Your task to perform on an android device: open app "Reddit" (install if not already installed) and go to login screen Image 0: 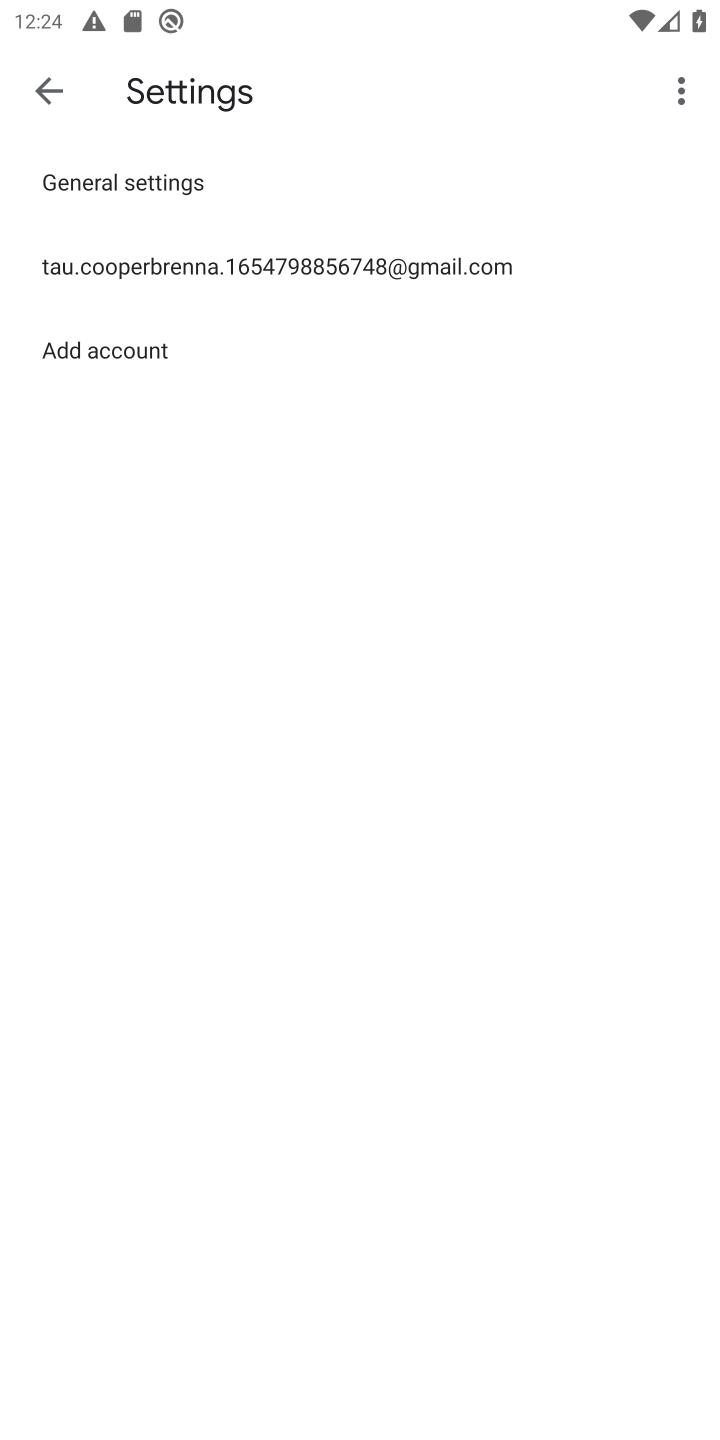
Step 0: press back button
Your task to perform on an android device: open app "Reddit" (install if not already installed) and go to login screen Image 1: 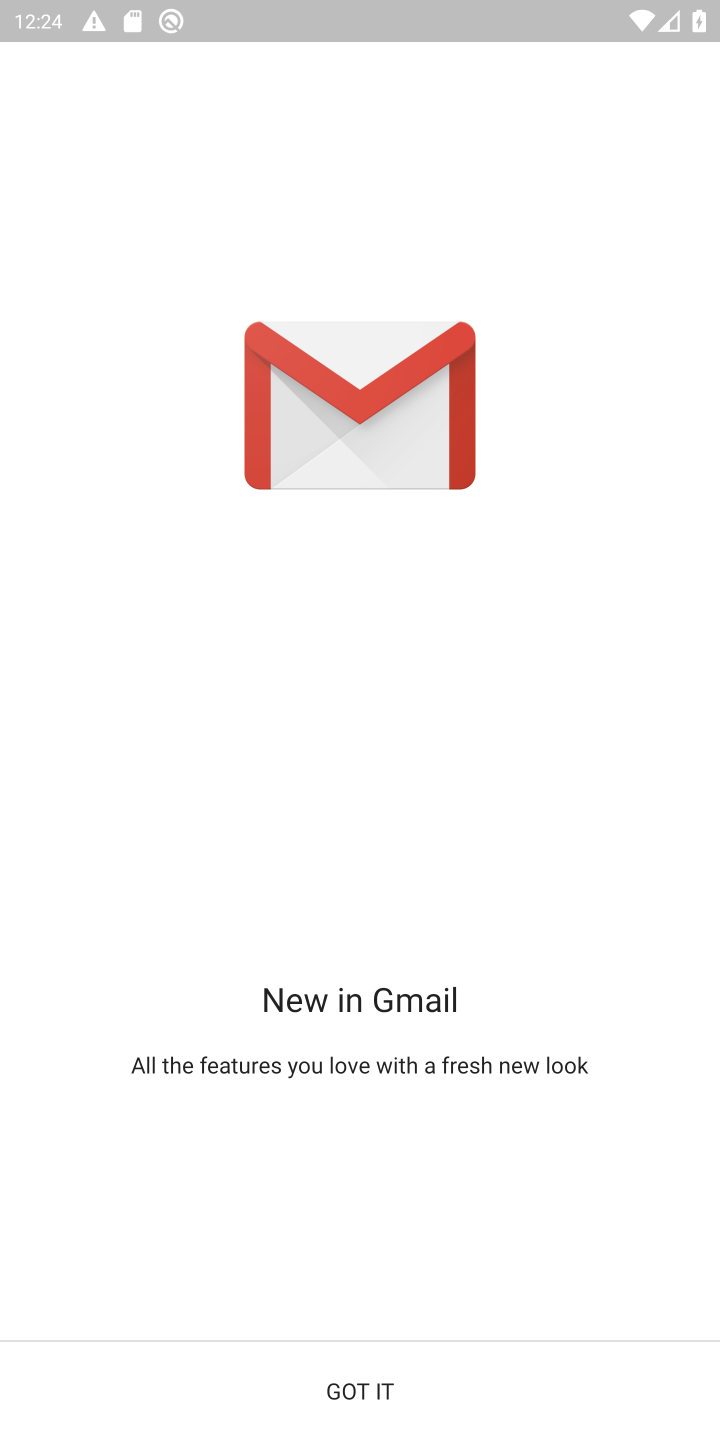
Step 1: press back button
Your task to perform on an android device: open app "Reddit" (install if not already installed) and go to login screen Image 2: 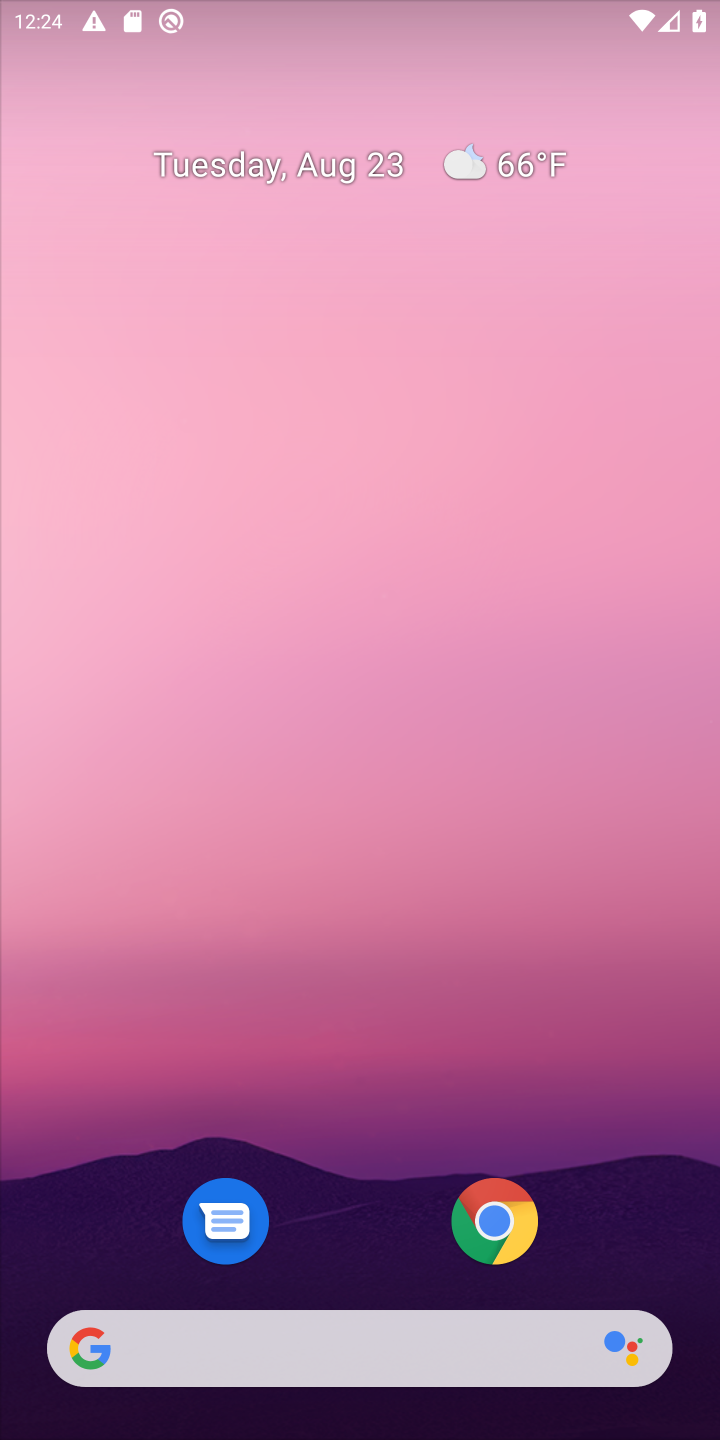
Step 2: drag from (378, 1146) to (479, 106)
Your task to perform on an android device: open app "Reddit" (install if not already installed) and go to login screen Image 3: 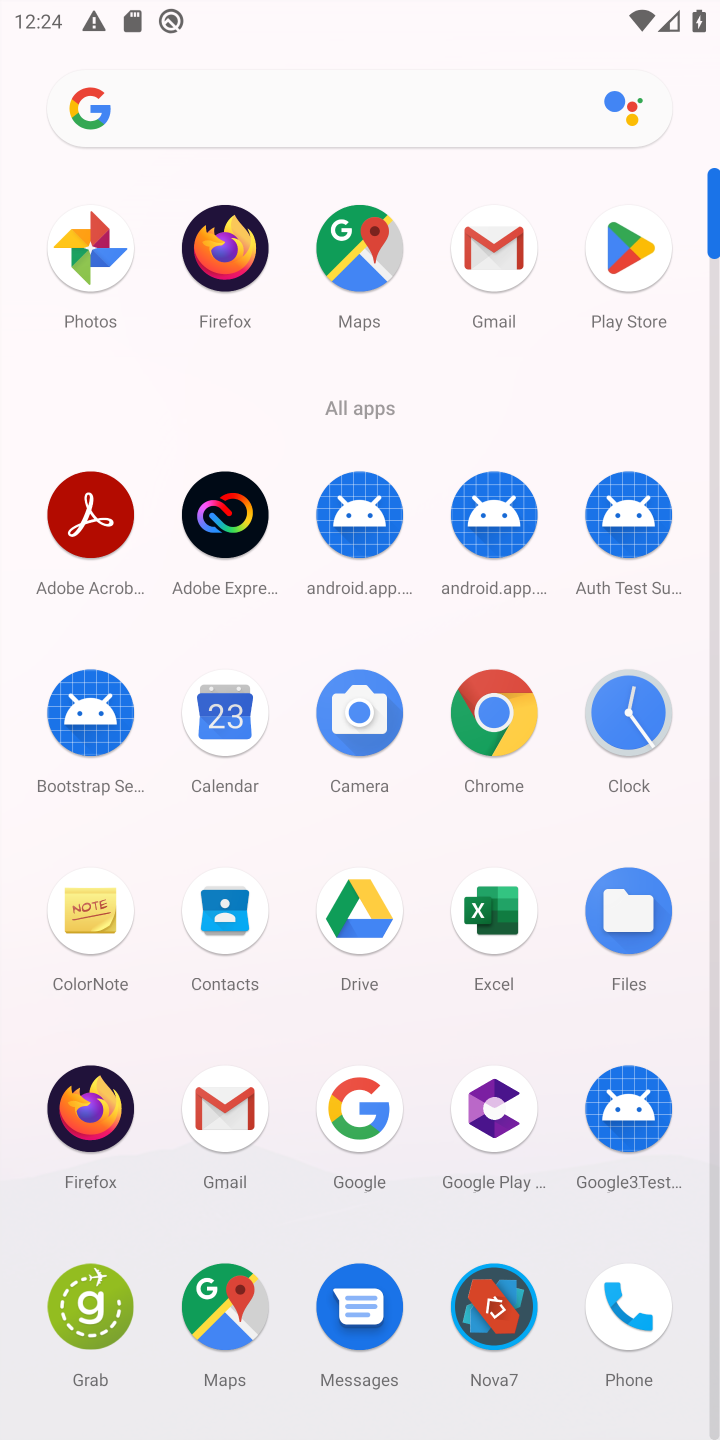
Step 3: click (616, 234)
Your task to perform on an android device: open app "Reddit" (install if not already installed) and go to login screen Image 4: 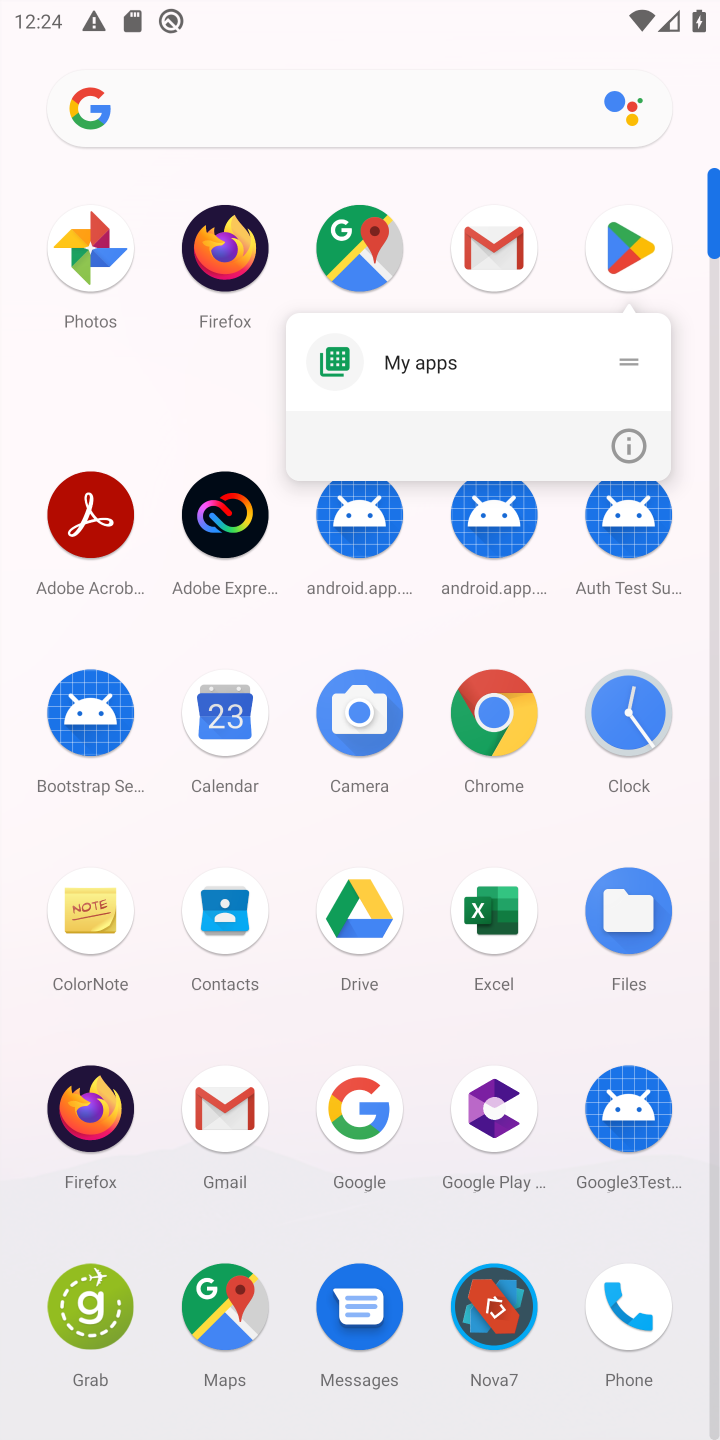
Step 4: click (634, 248)
Your task to perform on an android device: open app "Reddit" (install if not already installed) and go to login screen Image 5: 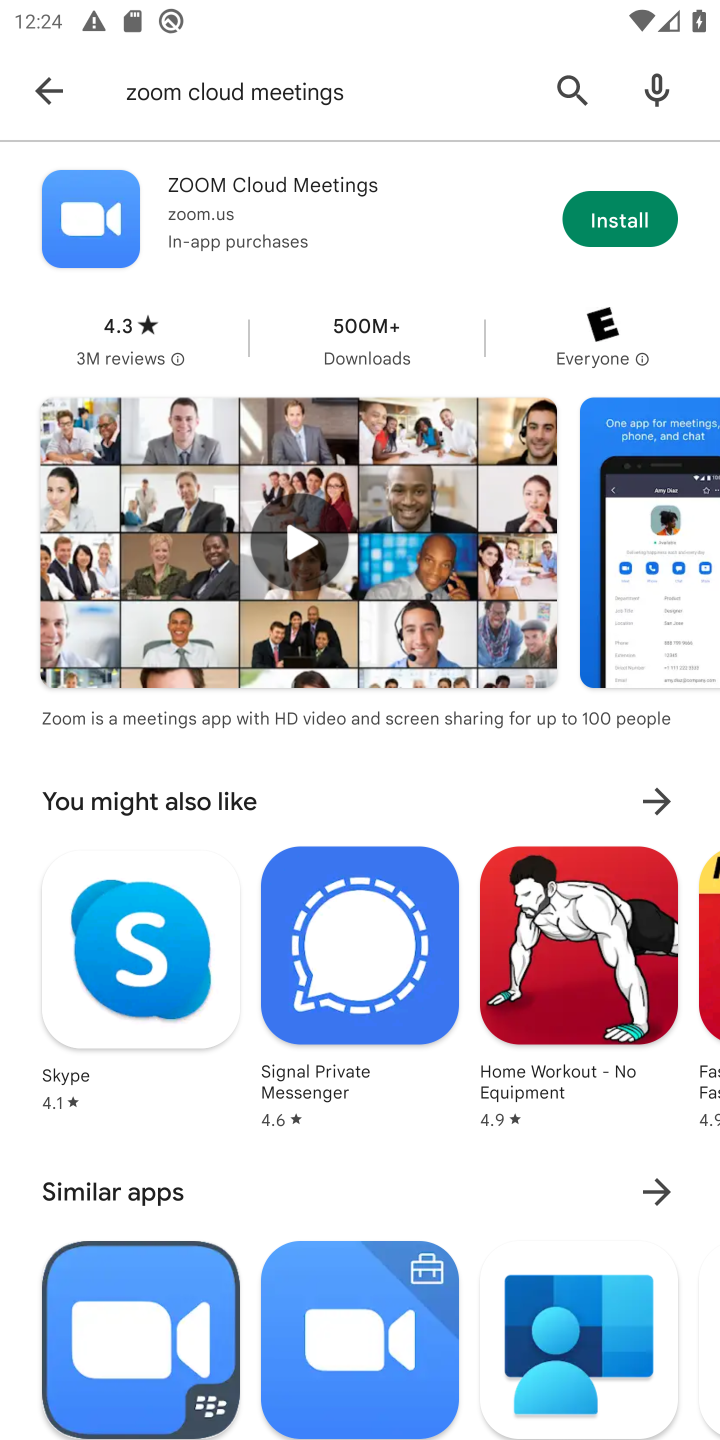
Step 5: click (577, 84)
Your task to perform on an android device: open app "Reddit" (install if not already installed) and go to login screen Image 6: 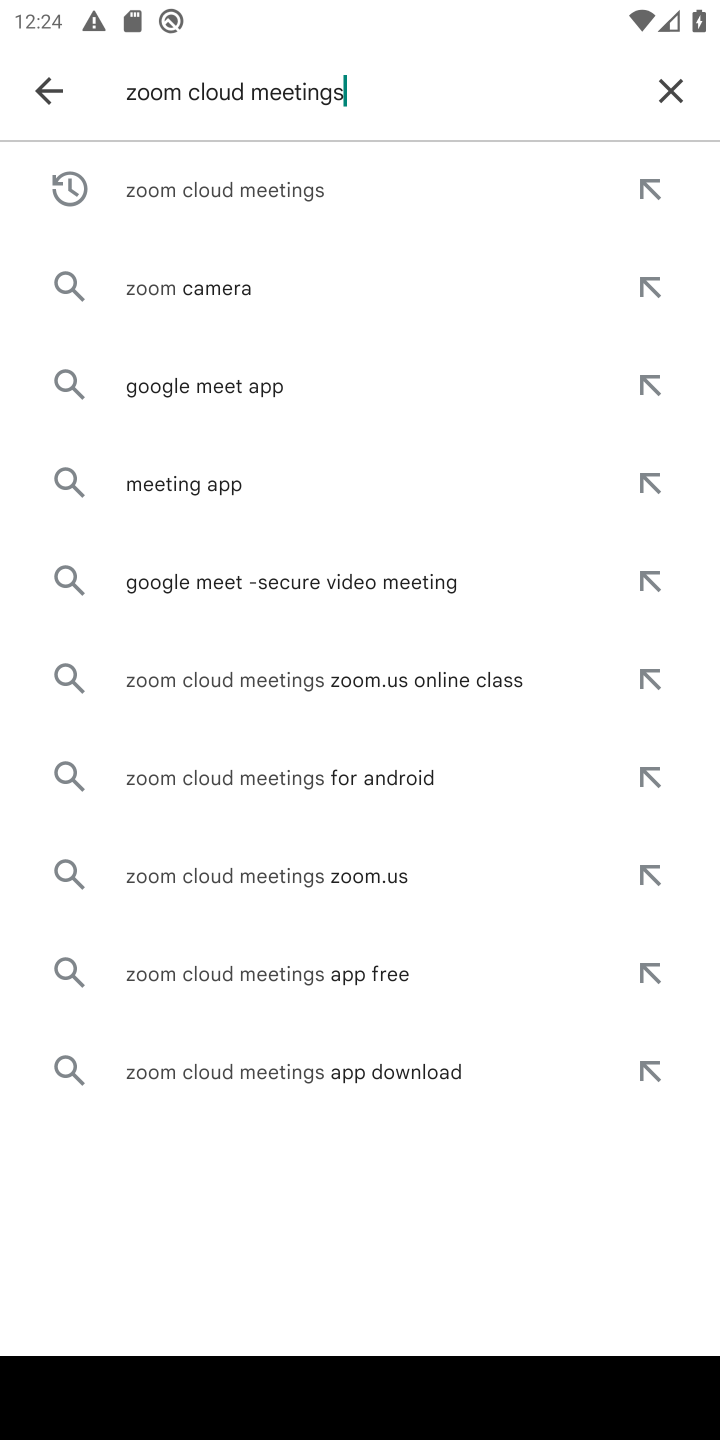
Step 6: click (658, 78)
Your task to perform on an android device: open app "Reddit" (install if not already installed) and go to login screen Image 7: 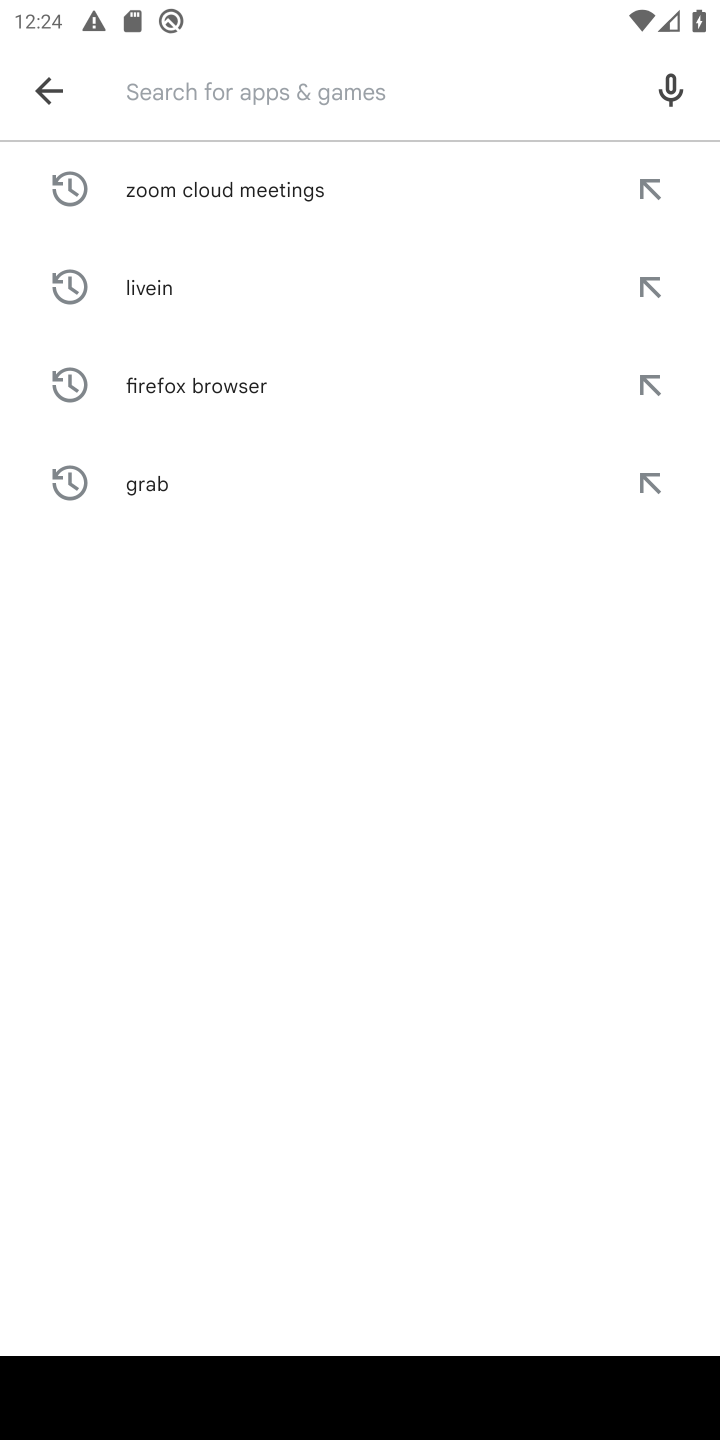
Step 7: click (204, 100)
Your task to perform on an android device: open app "Reddit" (install if not already installed) and go to login screen Image 8: 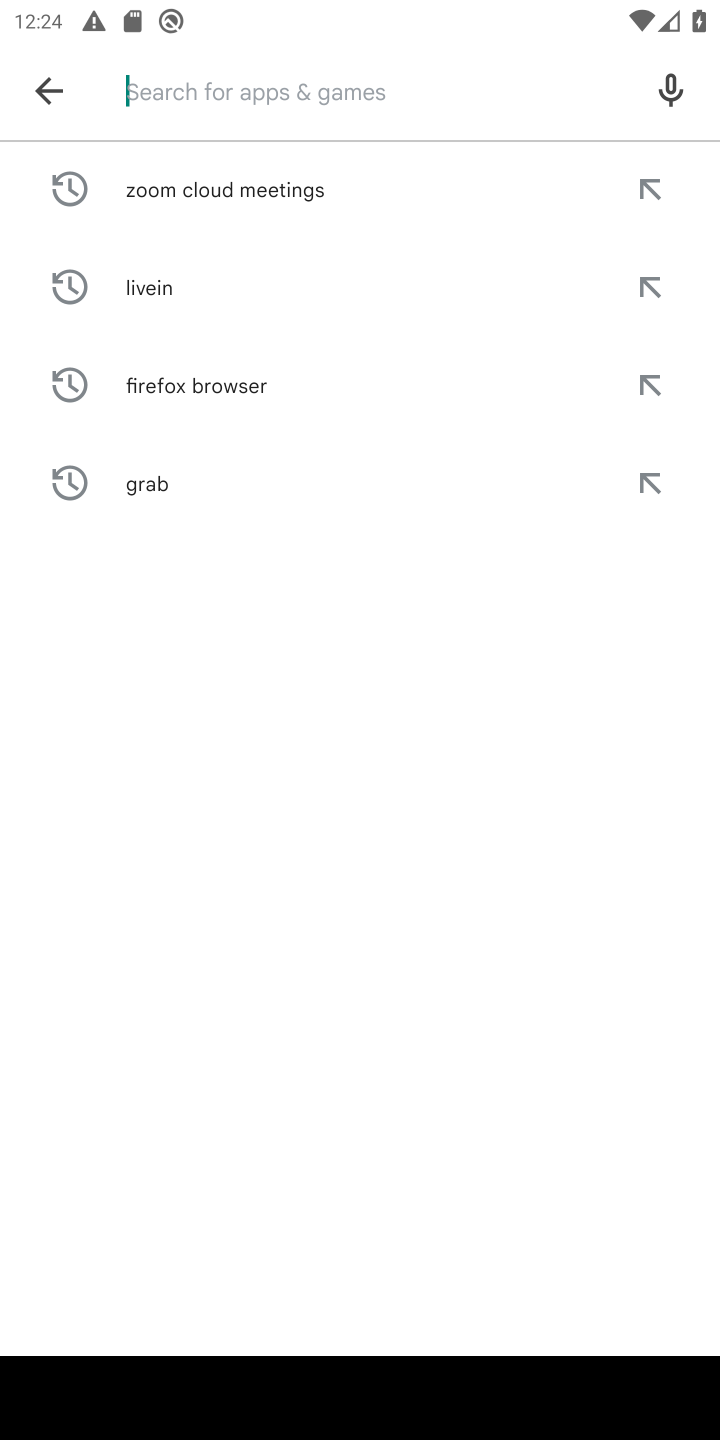
Step 8: type "Reddit"
Your task to perform on an android device: open app "Reddit" (install if not already installed) and go to login screen Image 9: 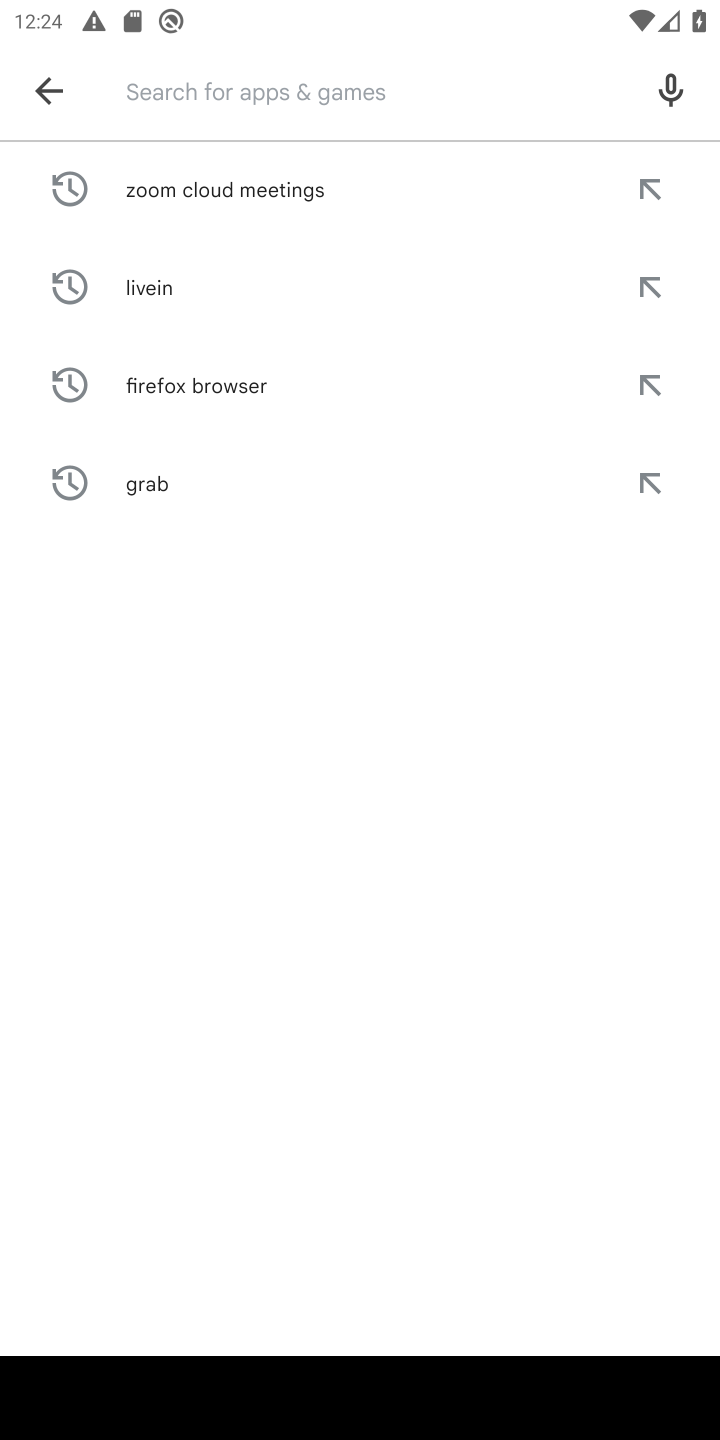
Step 9: click (470, 954)
Your task to perform on an android device: open app "Reddit" (install if not already installed) and go to login screen Image 10: 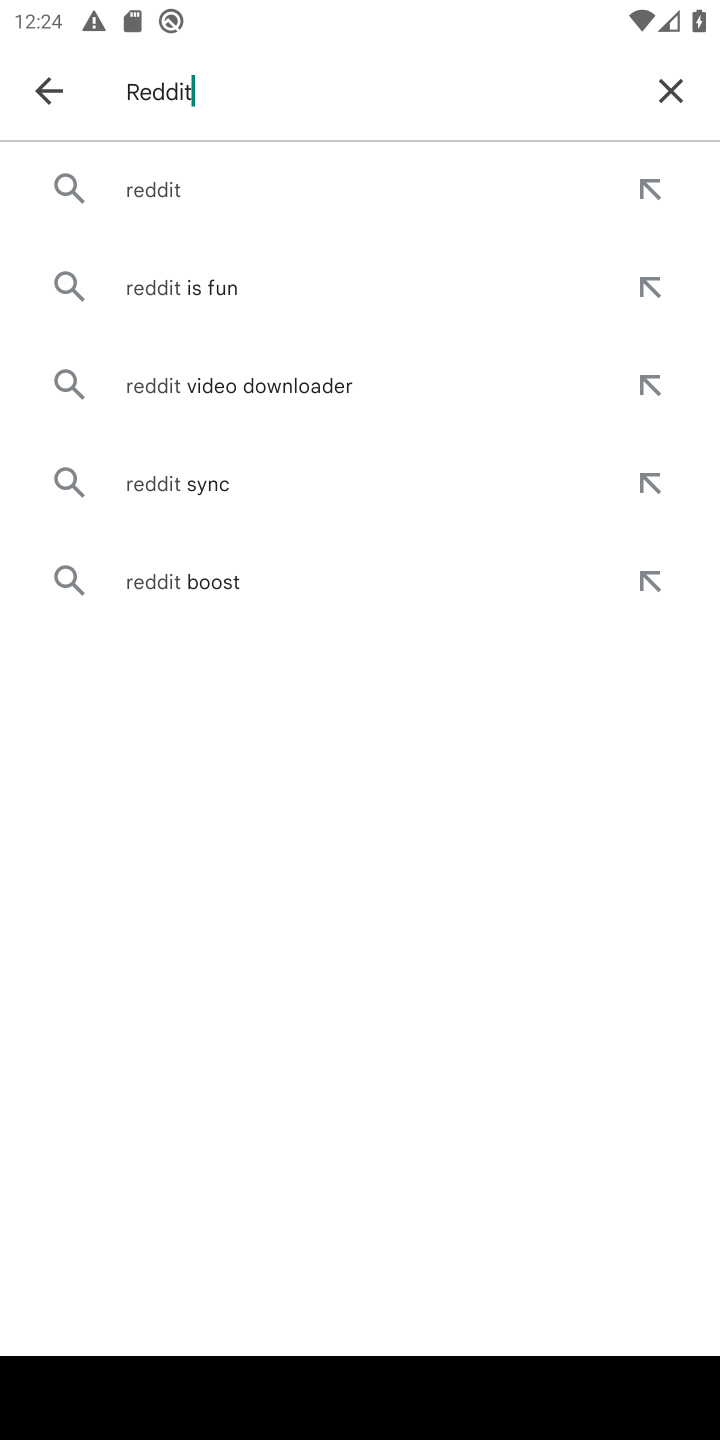
Step 10: click (162, 193)
Your task to perform on an android device: open app "Reddit" (install if not already installed) and go to login screen Image 11: 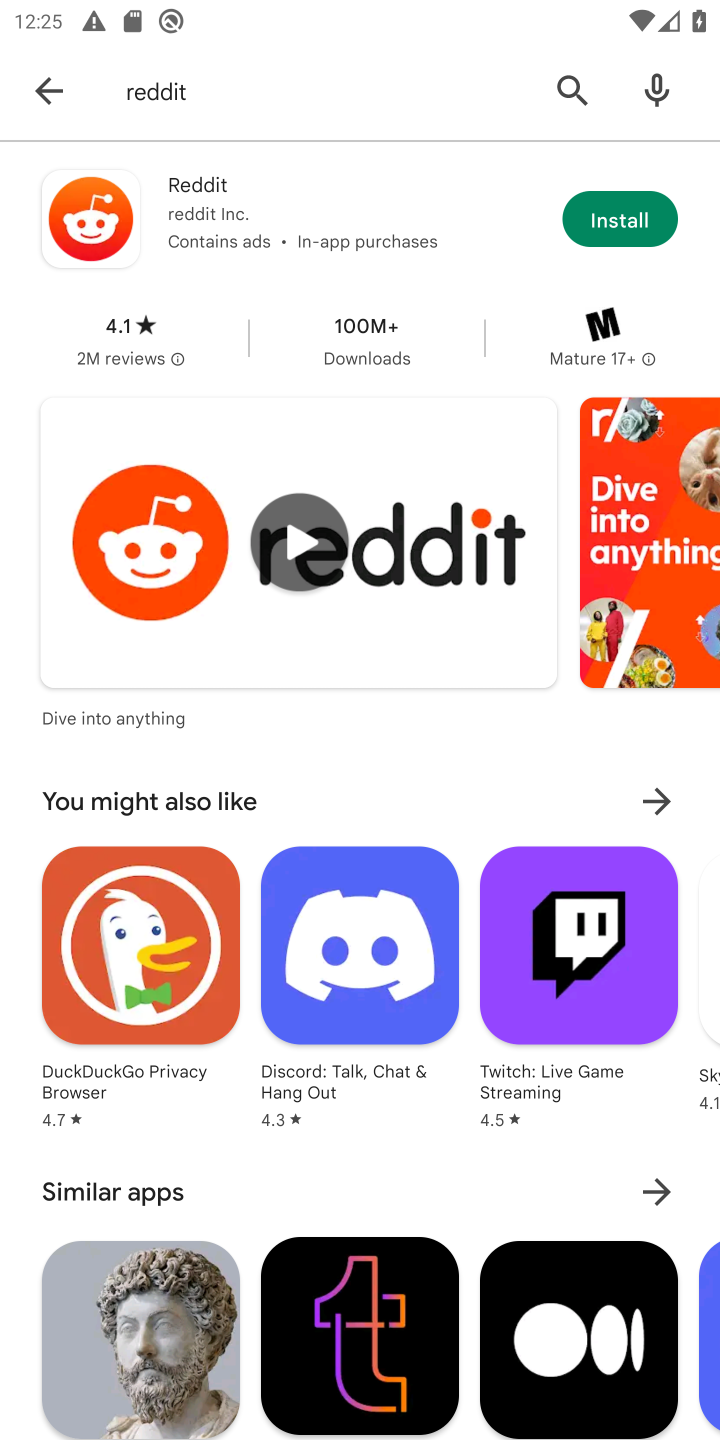
Step 11: click (625, 222)
Your task to perform on an android device: open app "Reddit" (install if not already installed) and go to login screen Image 12: 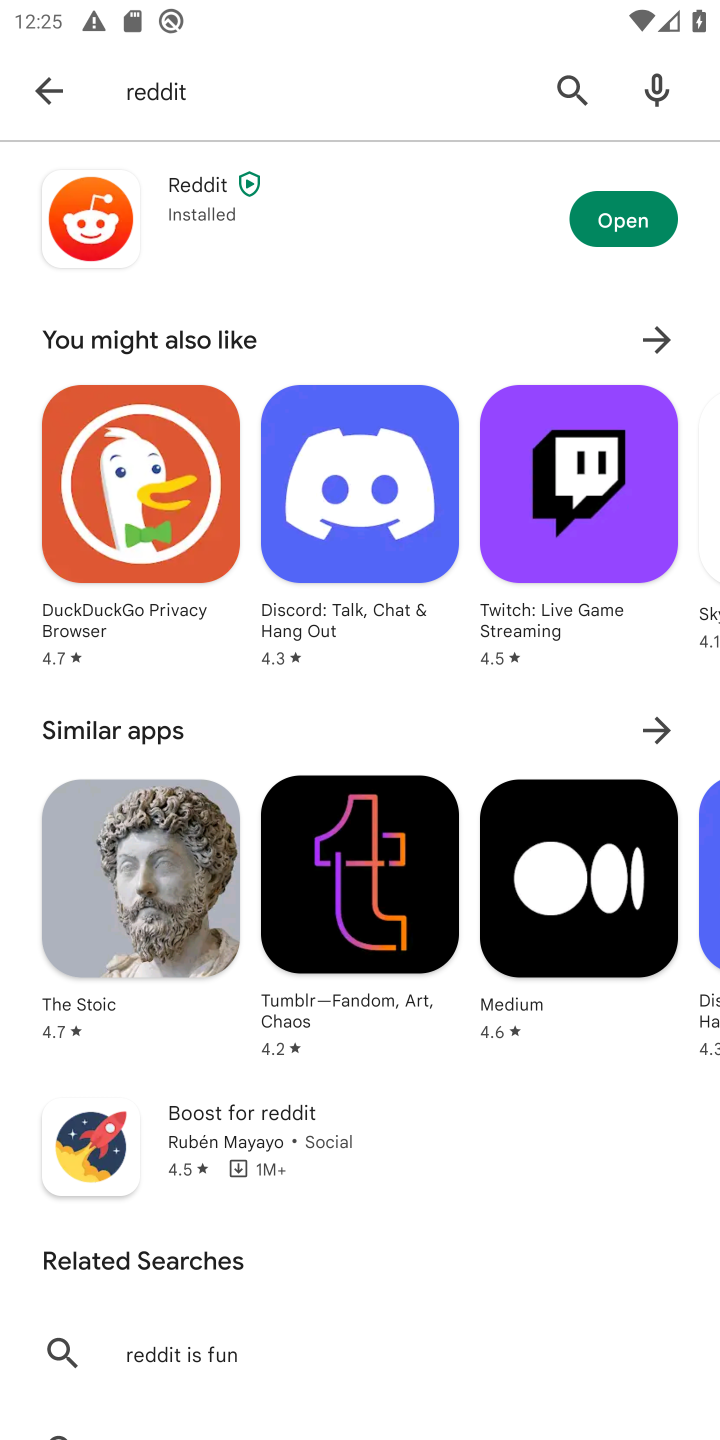
Step 12: click (620, 218)
Your task to perform on an android device: open app "Reddit" (install if not already installed) and go to login screen Image 13: 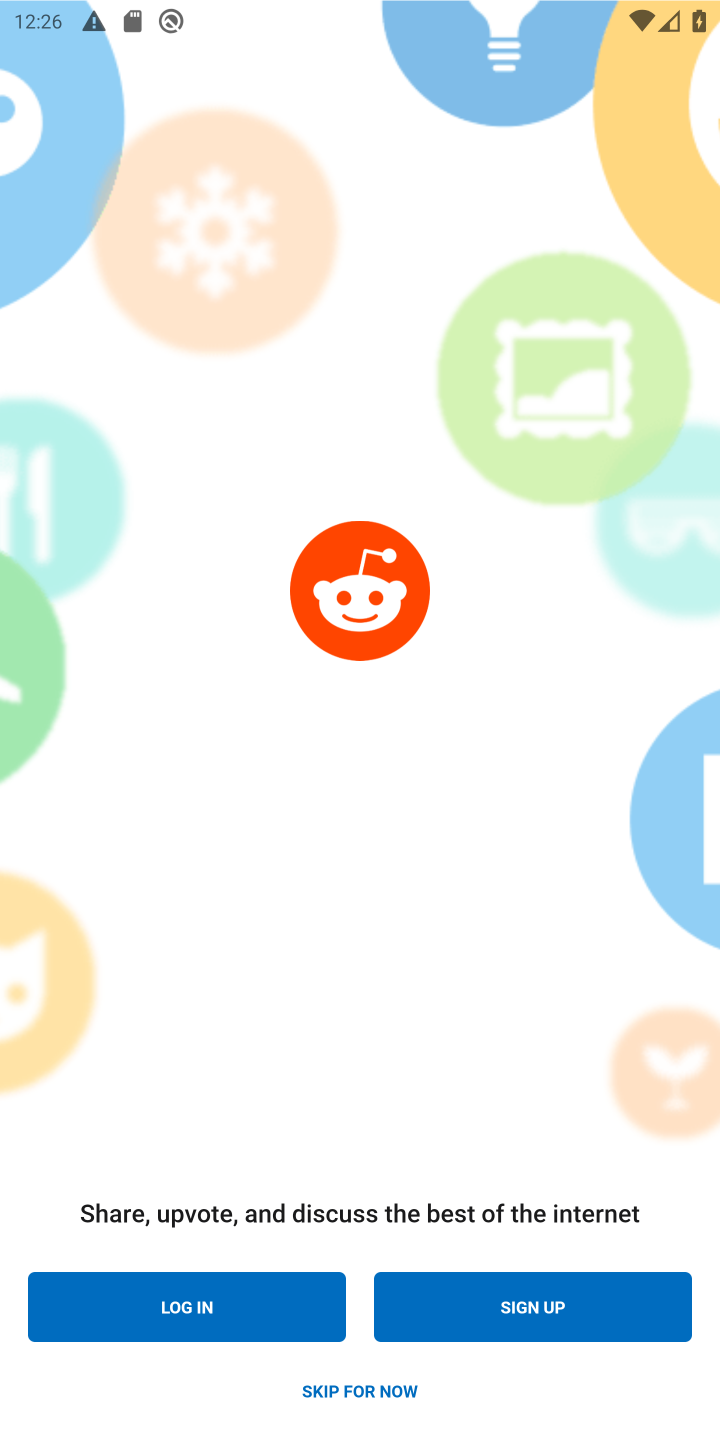
Step 13: click (183, 1311)
Your task to perform on an android device: open app "Reddit" (install if not already installed) and go to login screen Image 14: 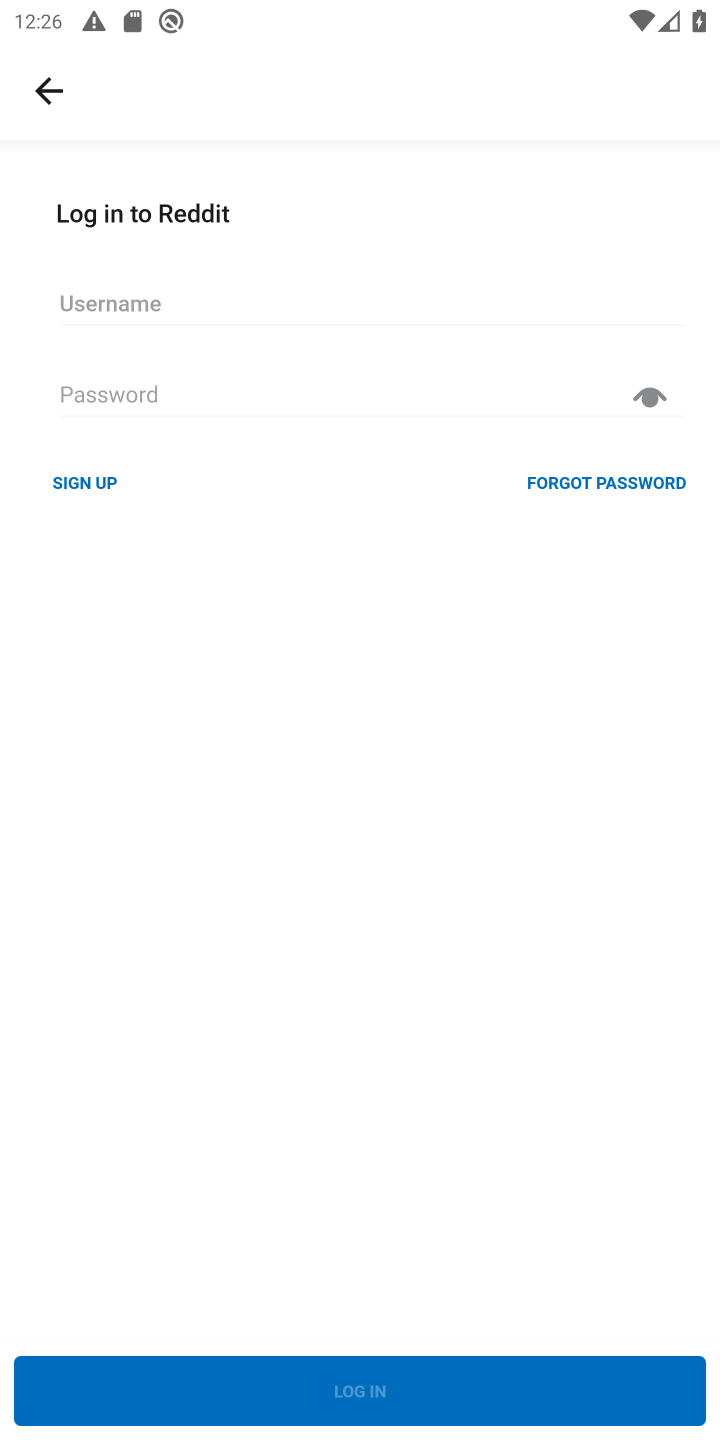
Step 14: task complete